Your task to perform on an android device: Do I have any events this weekend? Image 0: 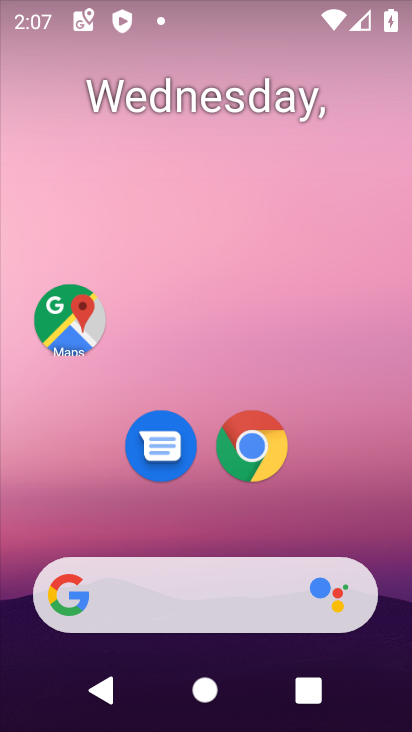
Step 0: drag from (256, 570) to (165, 25)
Your task to perform on an android device: Do I have any events this weekend? Image 1: 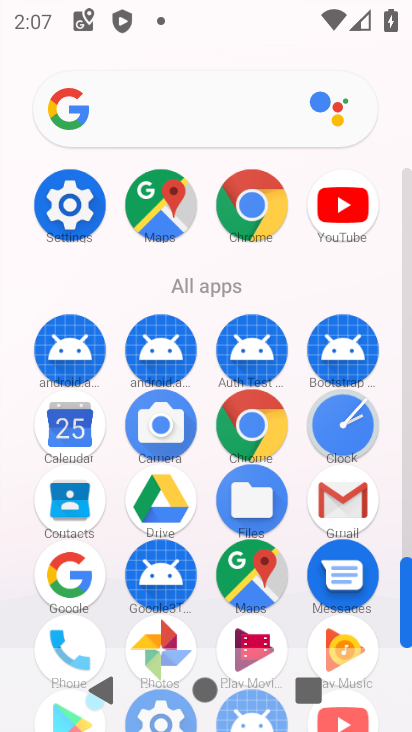
Step 1: click (69, 441)
Your task to perform on an android device: Do I have any events this weekend? Image 2: 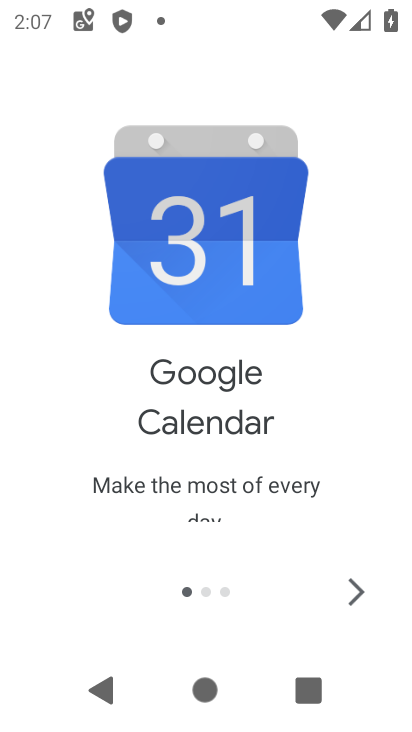
Step 2: click (357, 588)
Your task to perform on an android device: Do I have any events this weekend? Image 3: 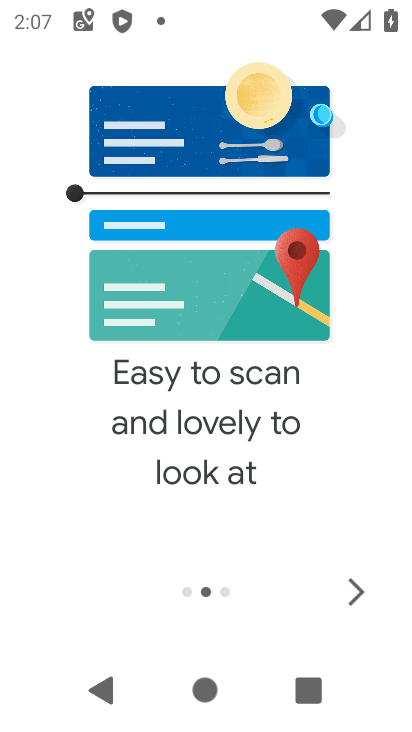
Step 3: click (357, 588)
Your task to perform on an android device: Do I have any events this weekend? Image 4: 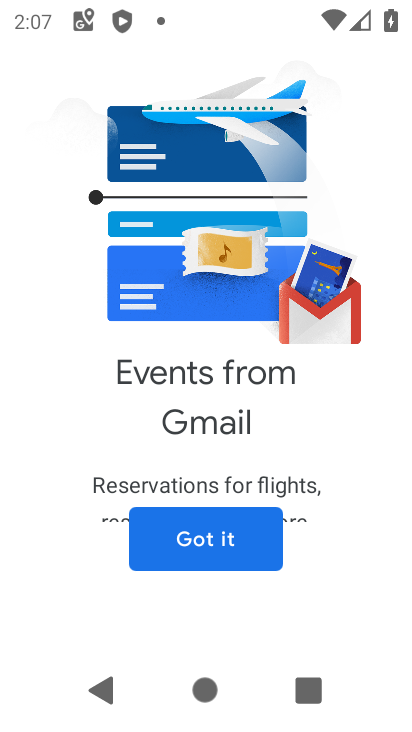
Step 4: click (162, 550)
Your task to perform on an android device: Do I have any events this weekend? Image 5: 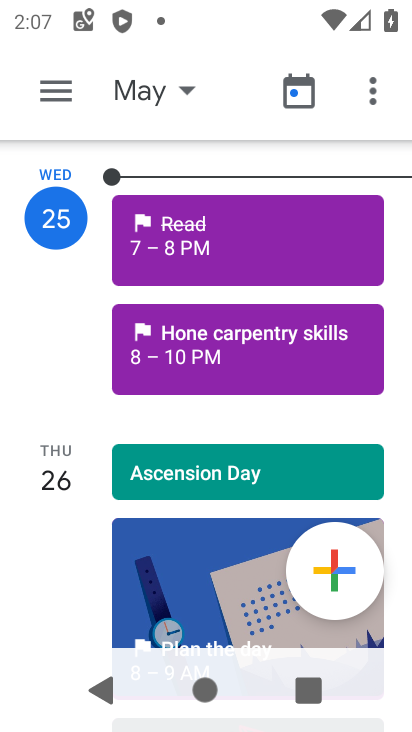
Step 5: click (52, 108)
Your task to perform on an android device: Do I have any events this weekend? Image 6: 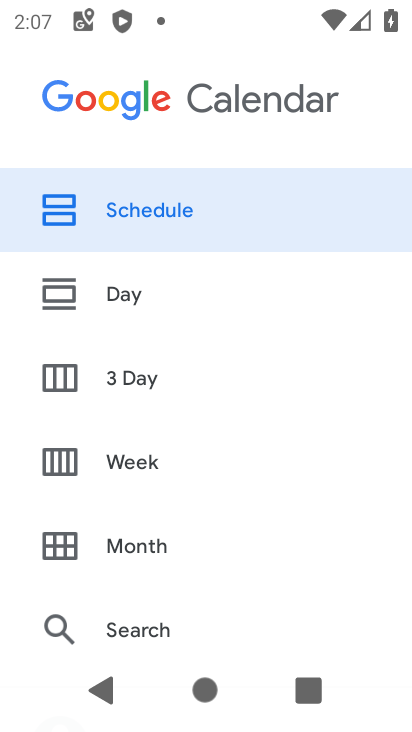
Step 6: click (144, 462)
Your task to perform on an android device: Do I have any events this weekend? Image 7: 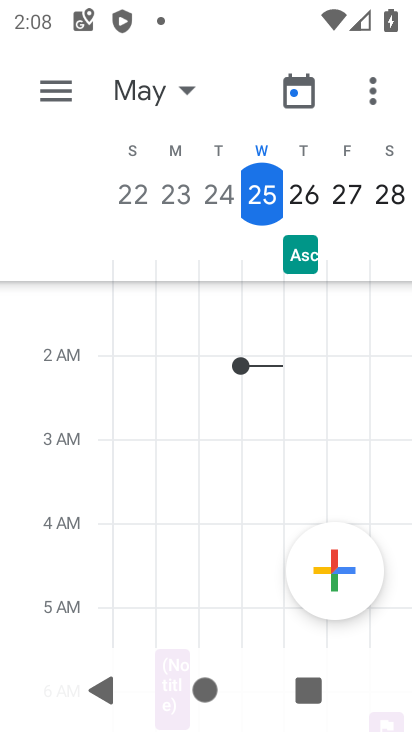
Step 7: task complete